Your task to perform on an android device: install app "McDonald's" Image 0: 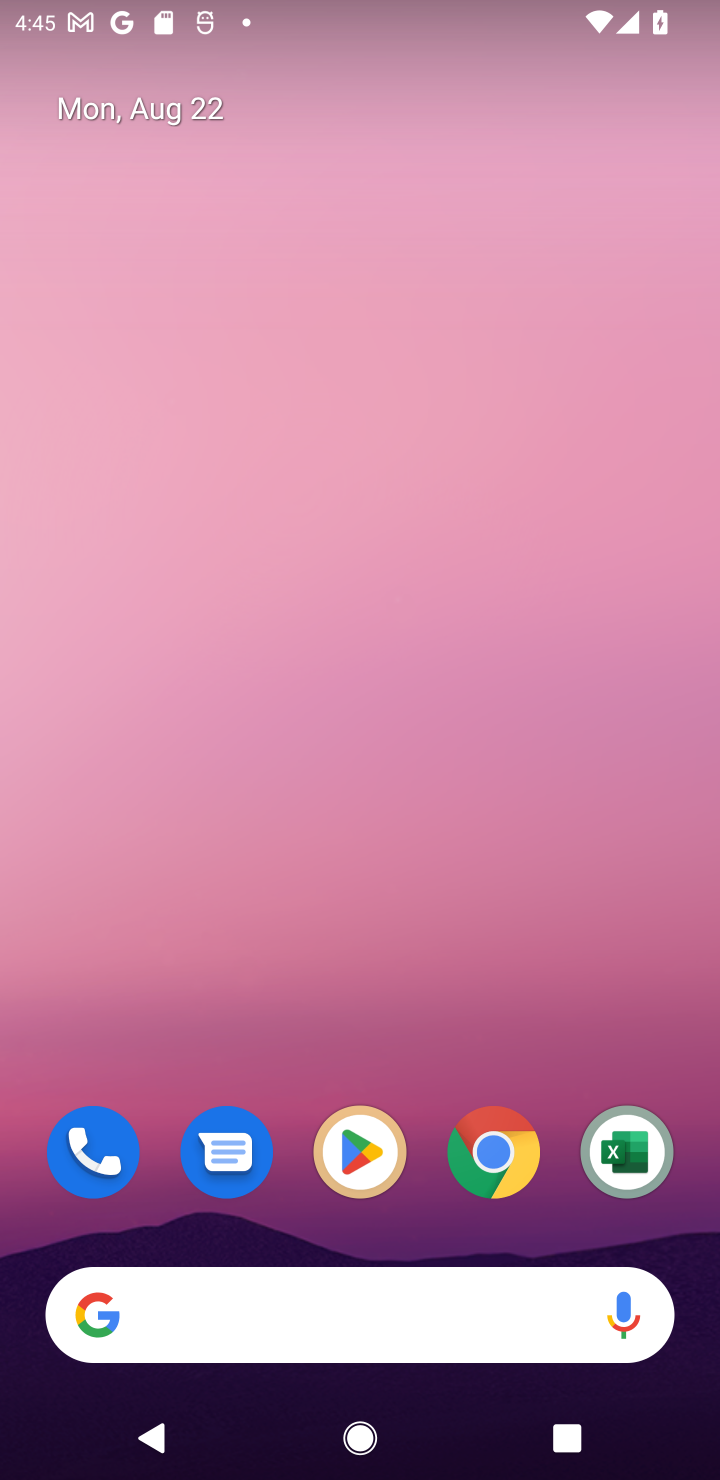
Step 0: click (325, 1134)
Your task to perform on an android device: install app "McDonald's" Image 1: 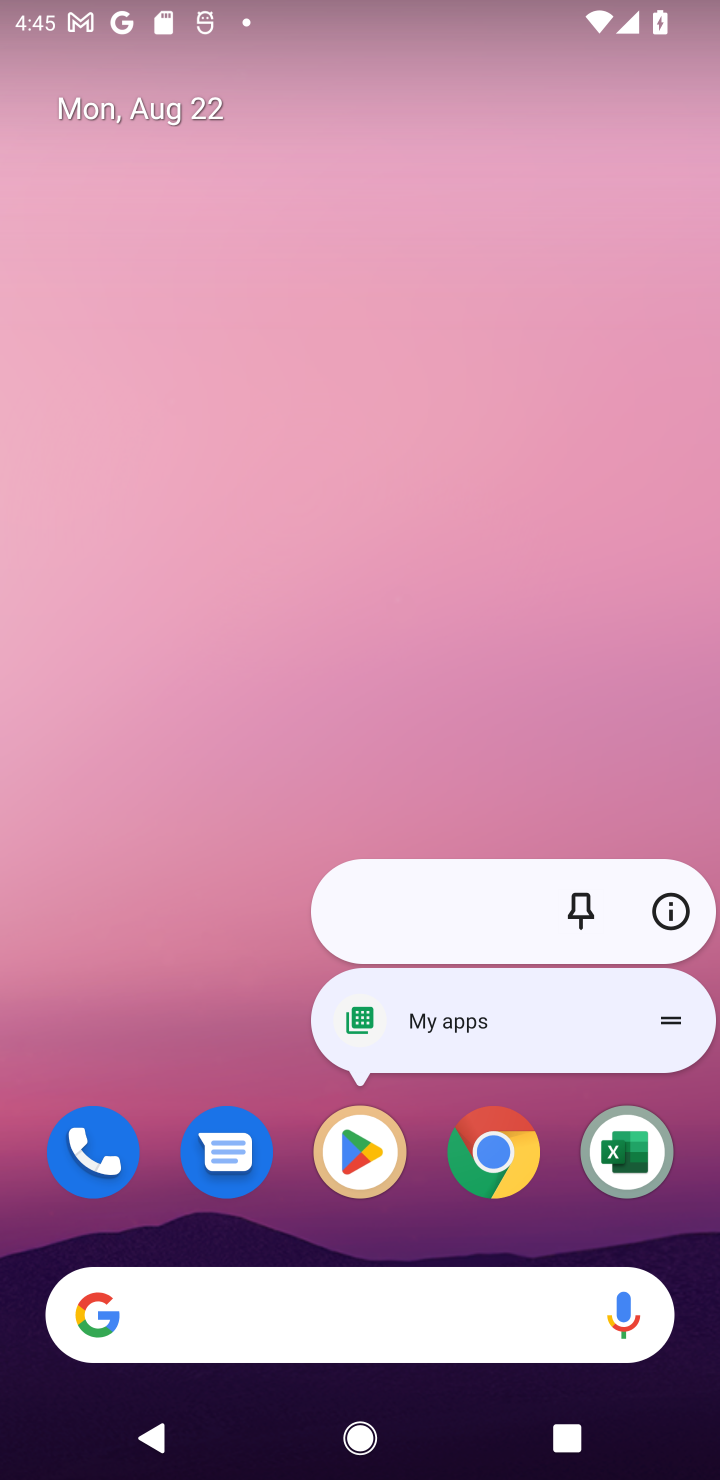
Step 1: click (355, 1174)
Your task to perform on an android device: install app "McDonald's" Image 2: 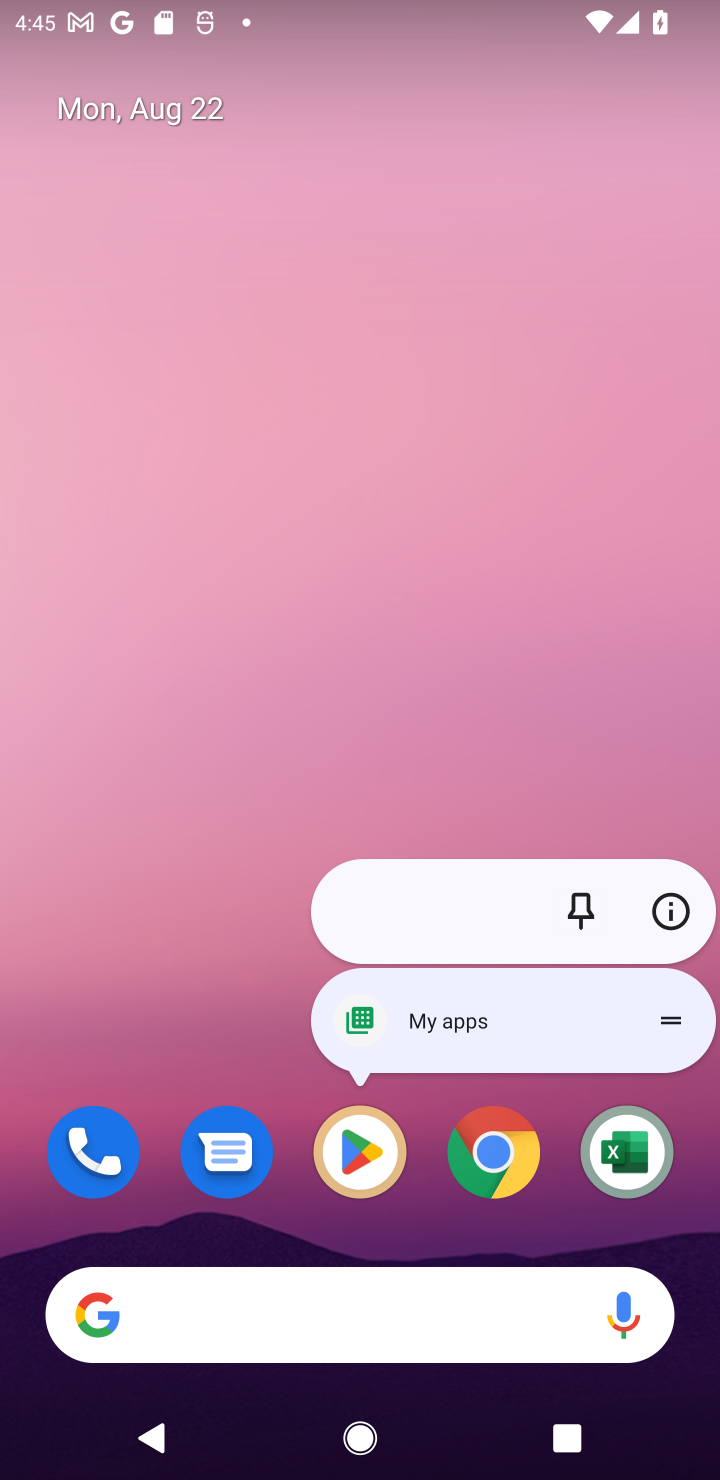
Step 2: click (355, 1174)
Your task to perform on an android device: install app "McDonald's" Image 3: 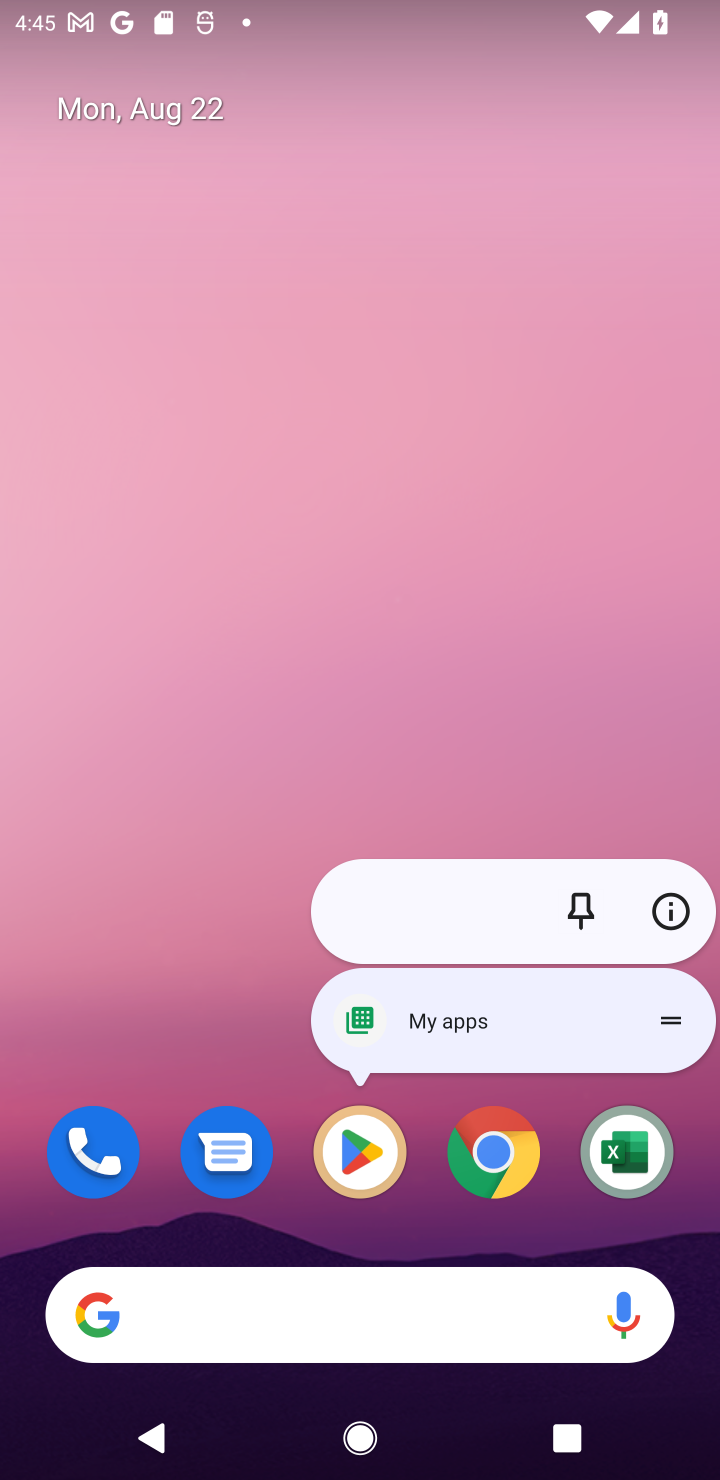
Step 3: click (355, 1174)
Your task to perform on an android device: install app "McDonald's" Image 4: 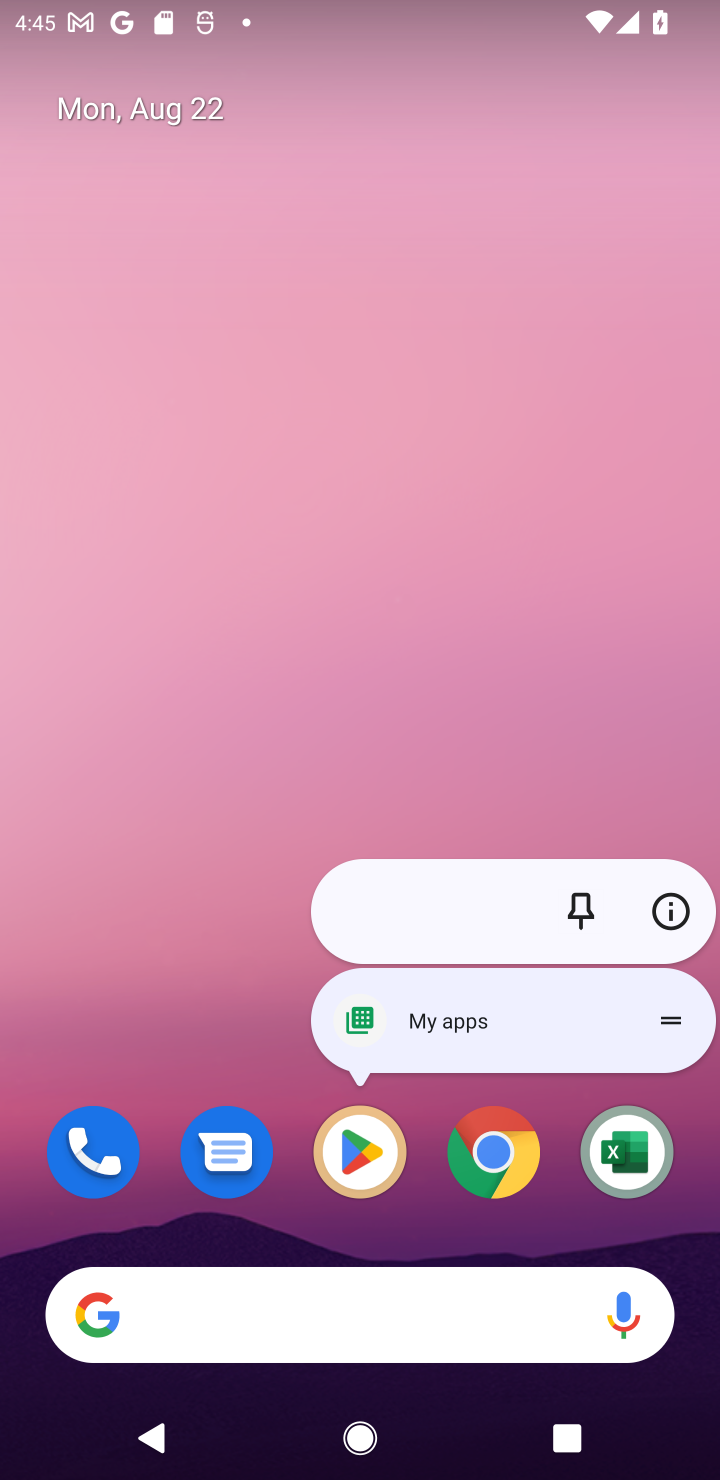
Step 4: click (355, 1174)
Your task to perform on an android device: install app "McDonald's" Image 5: 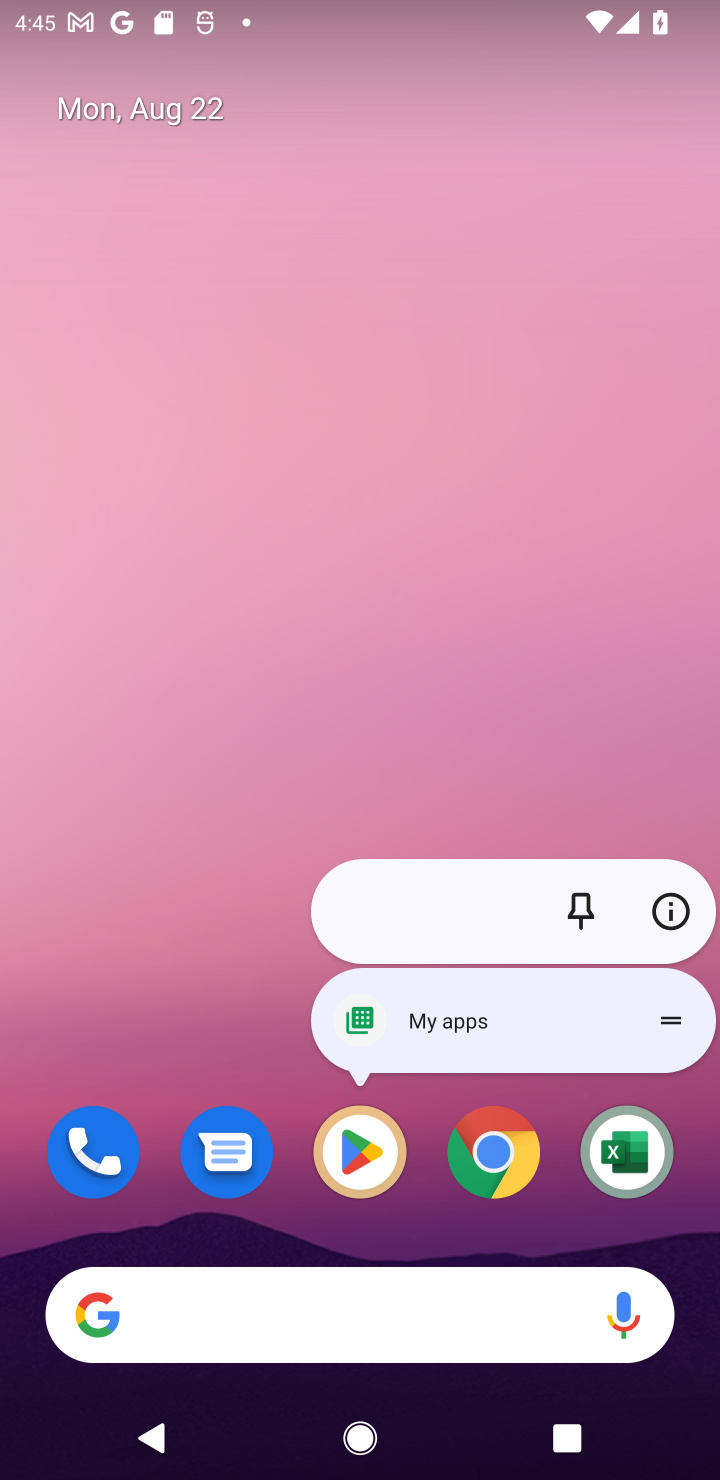
Step 5: click (355, 1174)
Your task to perform on an android device: install app "McDonald's" Image 6: 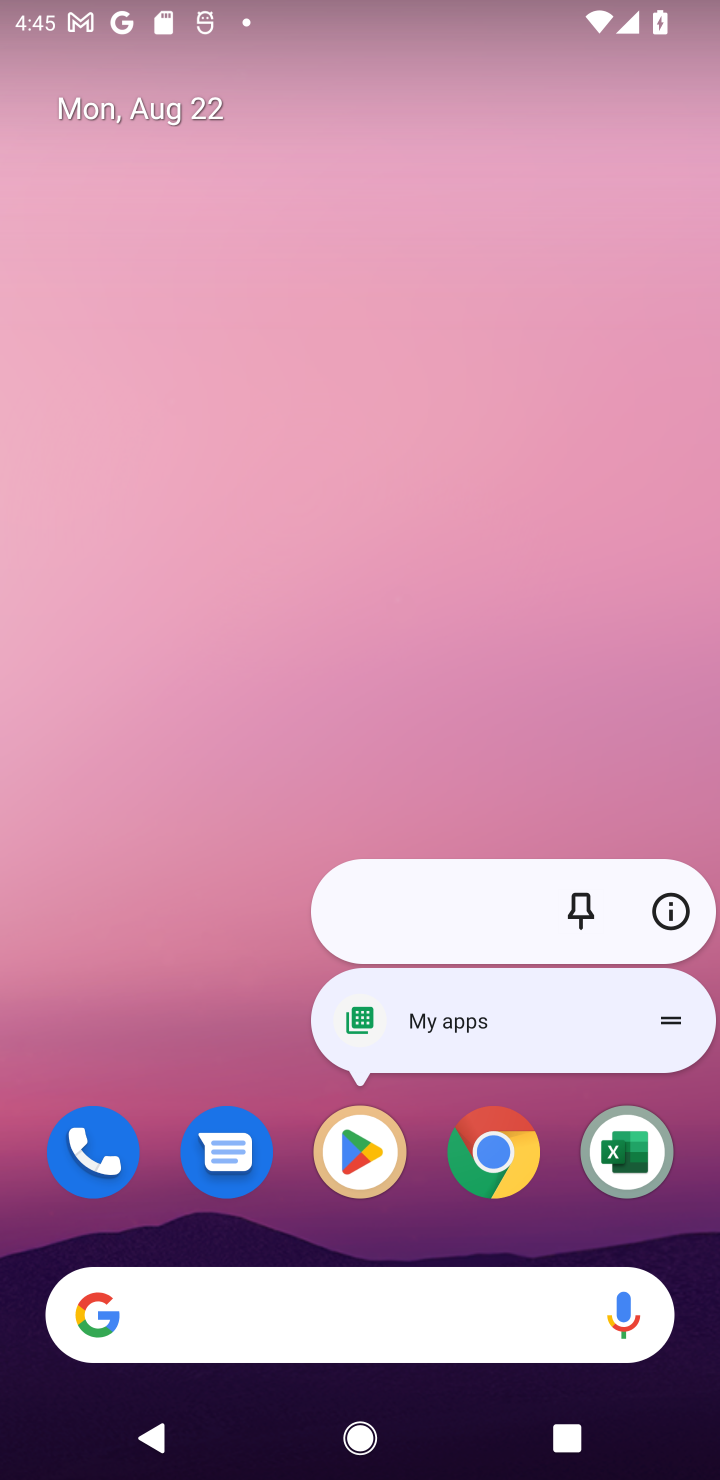
Step 6: click (355, 1174)
Your task to perform on an android device: install app "McDonald's" Image 7: 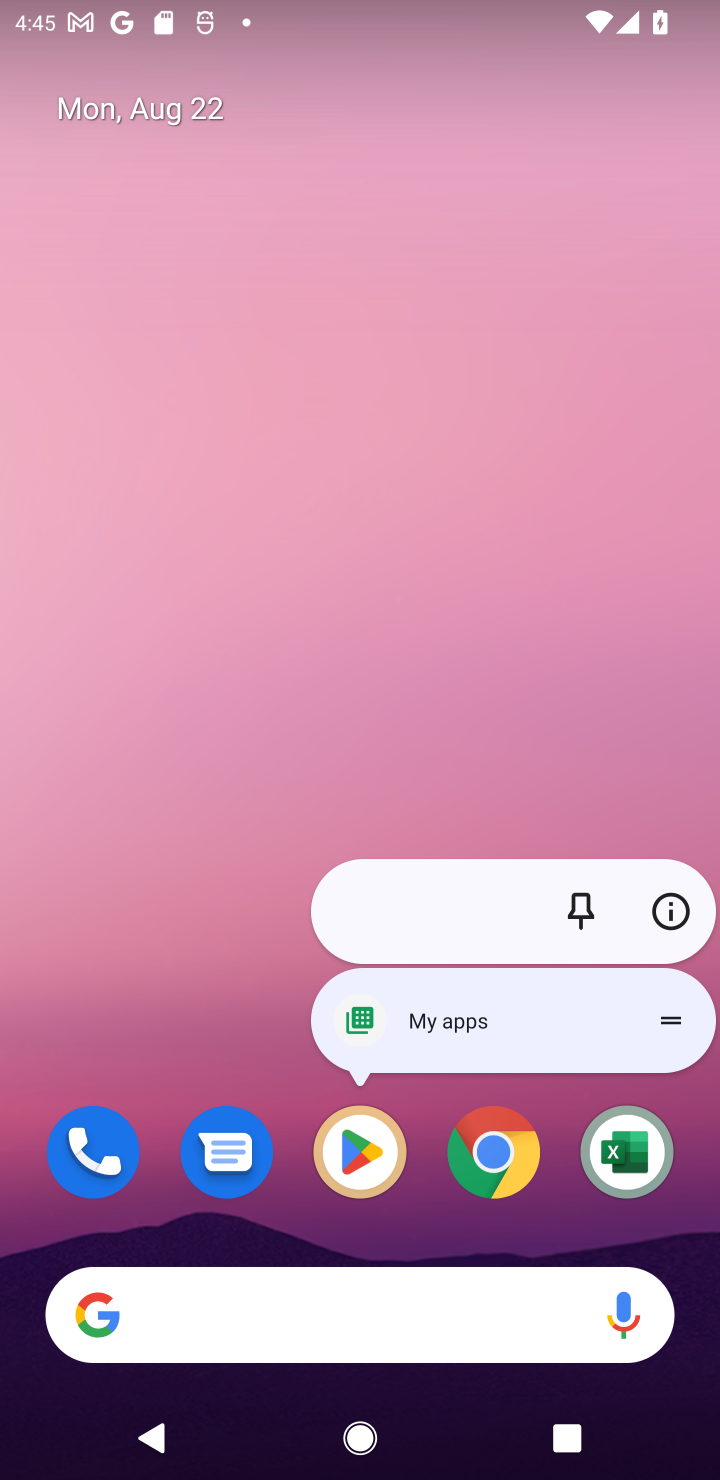
Step 7: click (380, 1150)
Your task to perform on an android device: install app "McDonald's" Image 8: 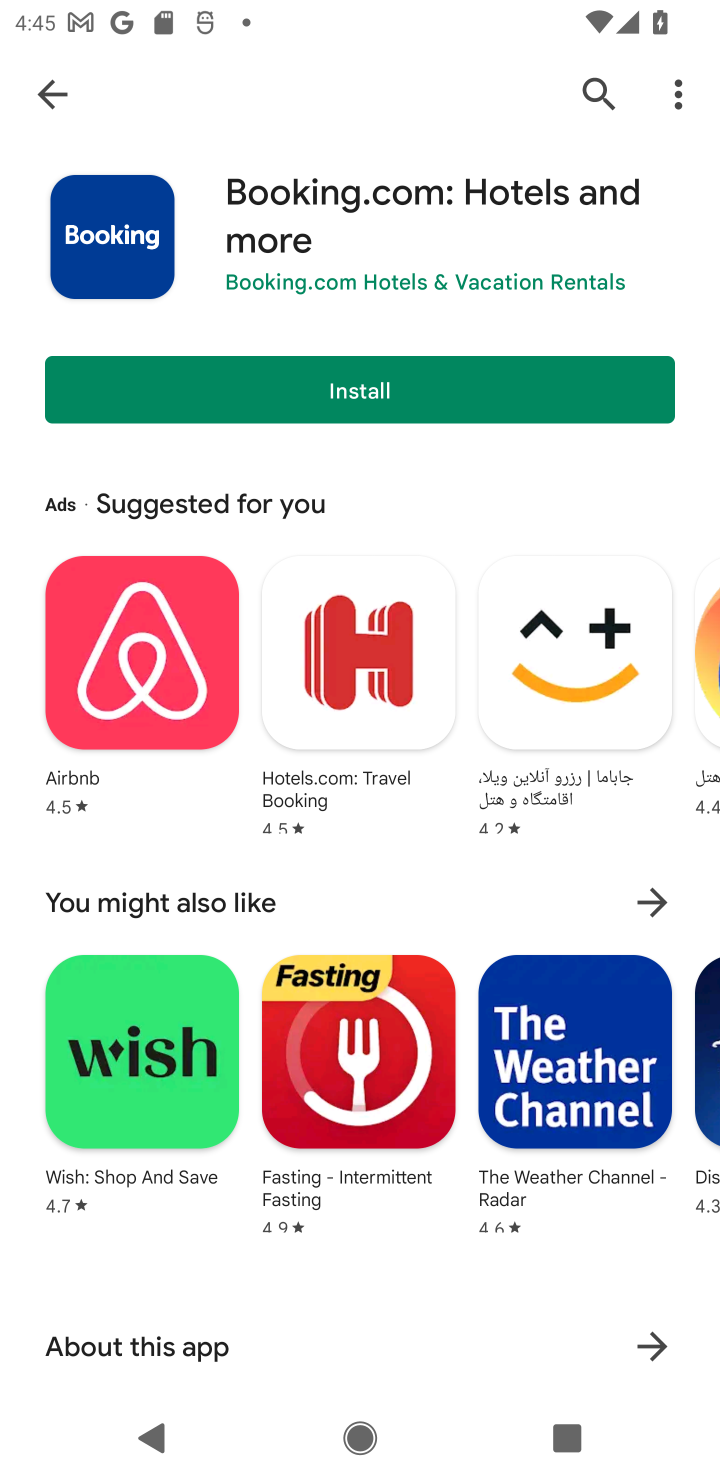
Step 8: click (35, 83)
Your task to perform on an android device: install app "McDonald's" Image 9: 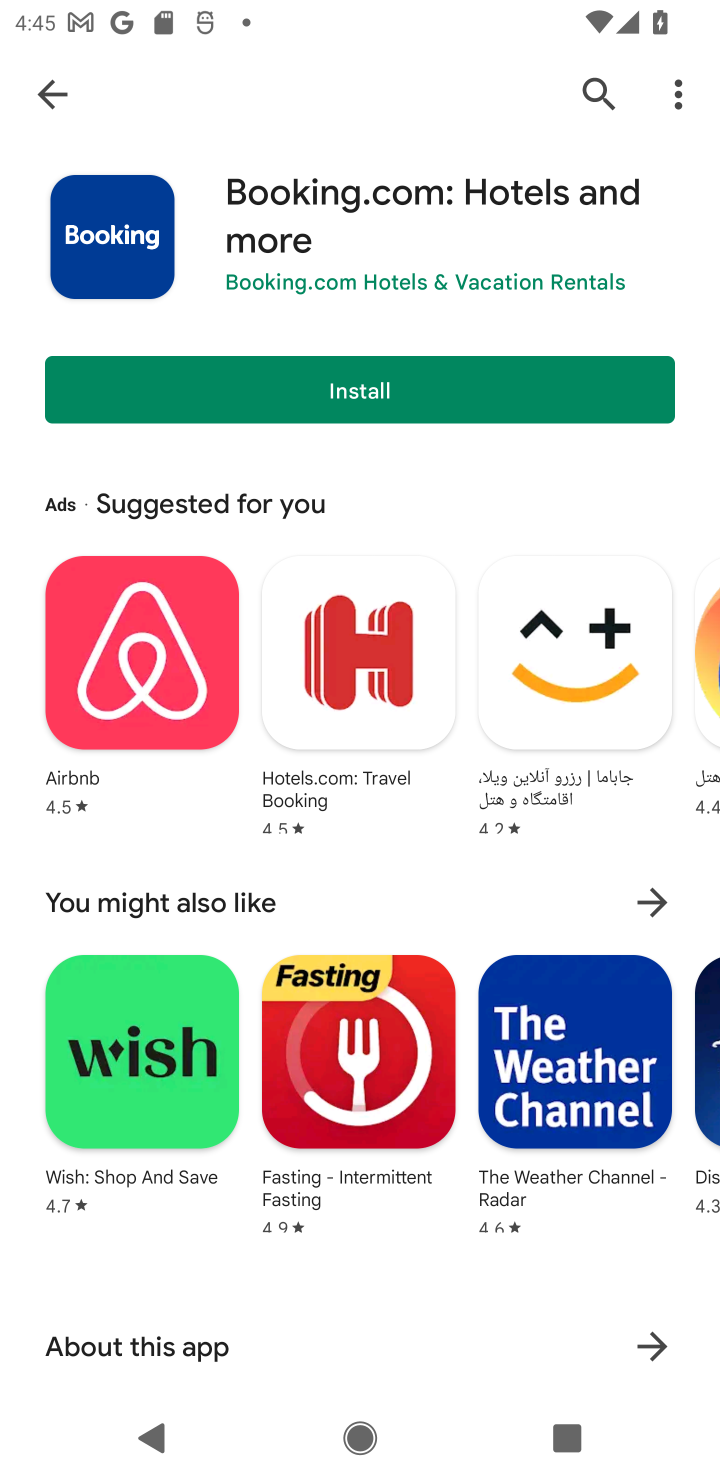
Step 9: click (585, 91)
Your task to perform on an android device: install app "McDonald's" Image 10: 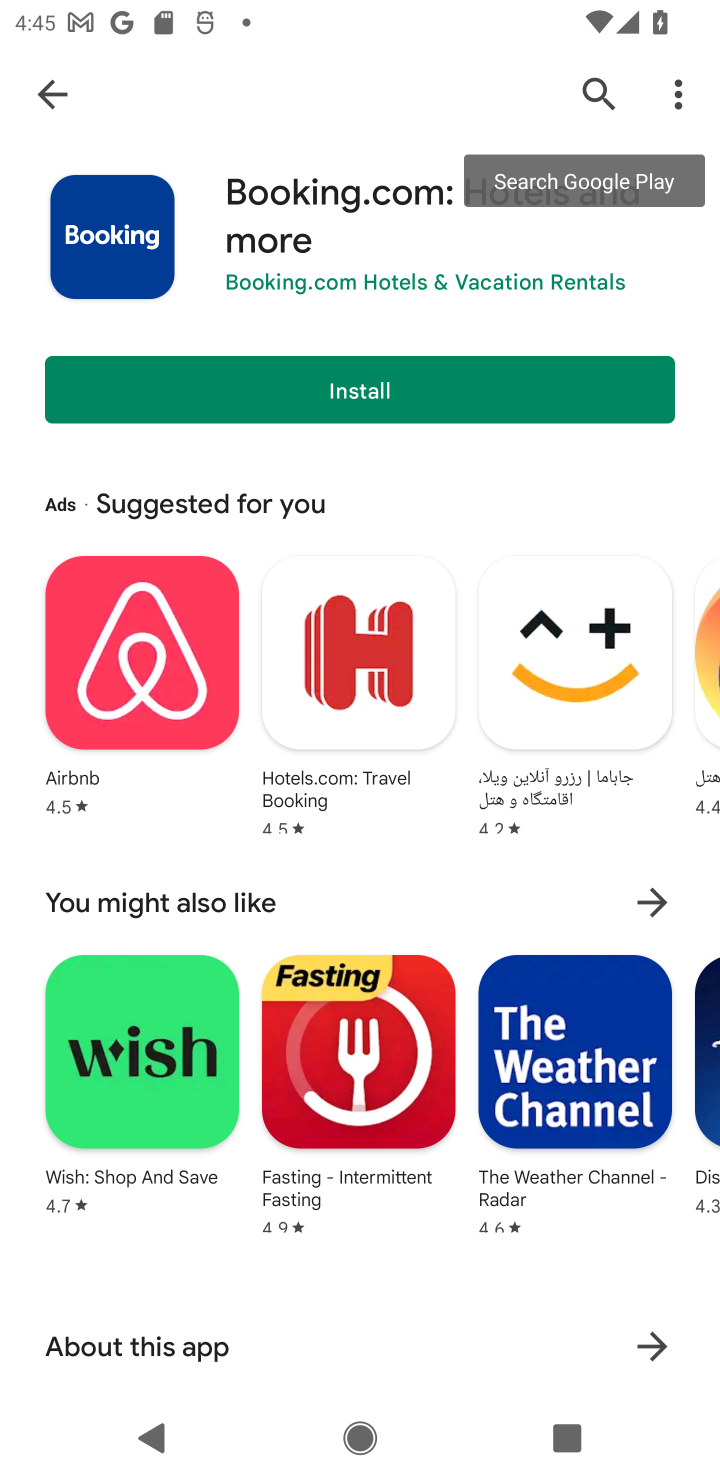
Step 10: click (585, 91)
Your task to perform on an android device: install app "McDonald's" Image 11: 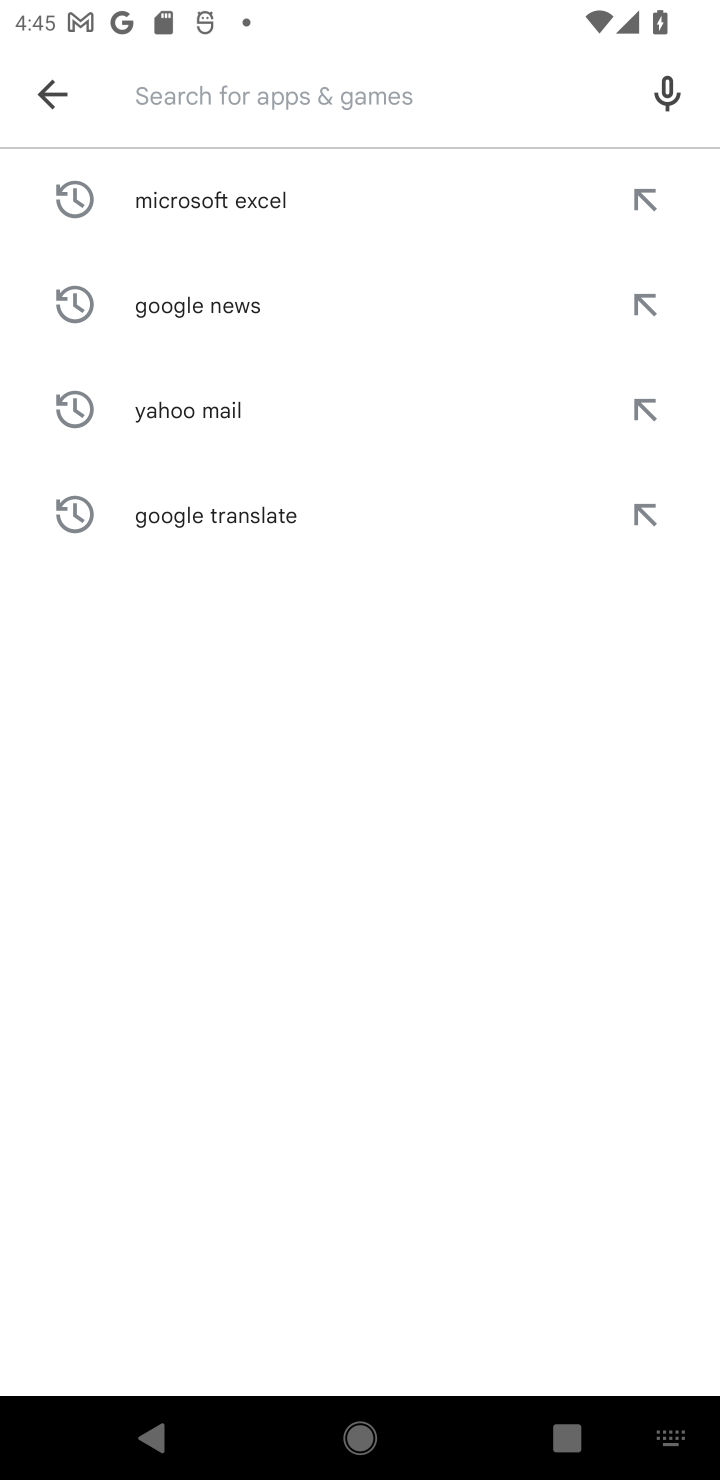
Step 11: type "McDonald's"
Your task to perform on an android device: install app "McDonald's" Image 12: 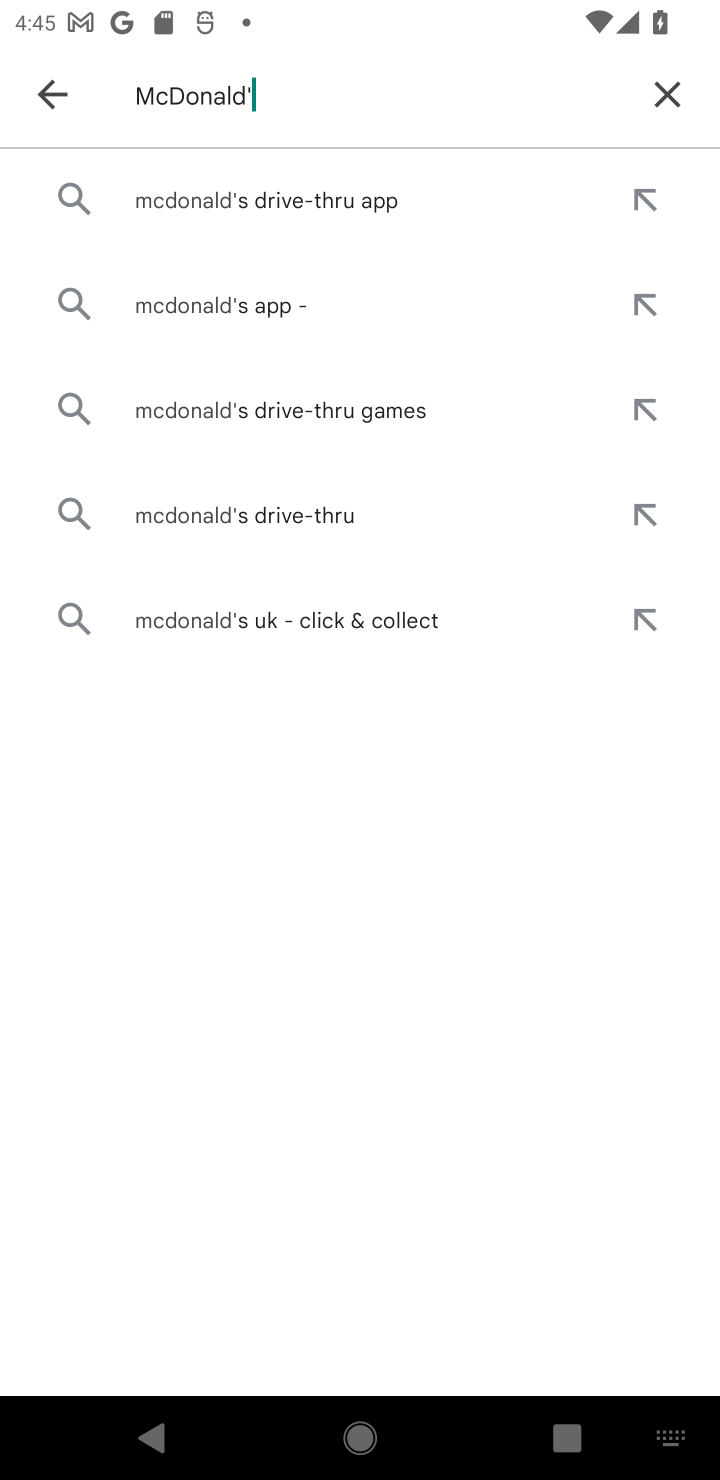
Step 12: type ""
Your task to perform on an android device: install app "McDonald's" Image 13: 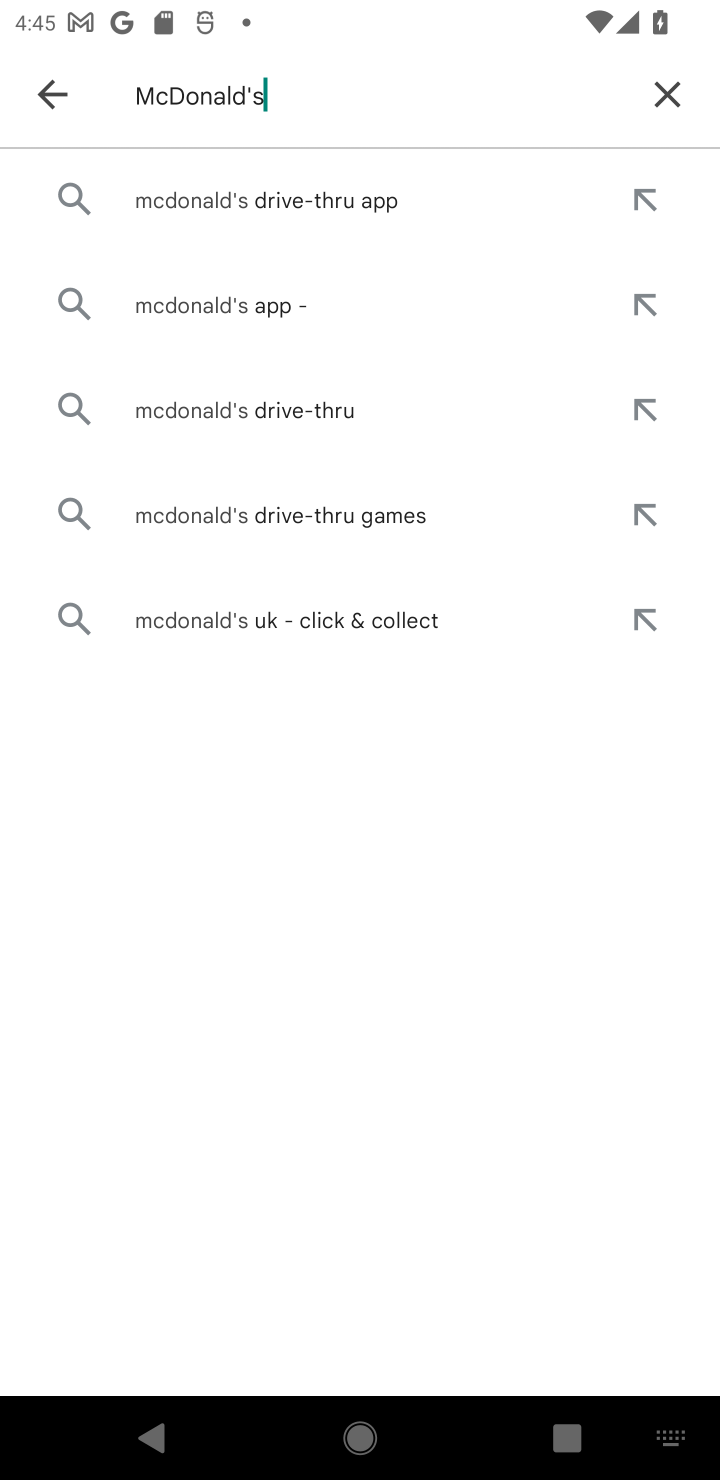
Step 13: click (175, 179)
Your task to perform on an android device: install app "McDonald's" Image 14: 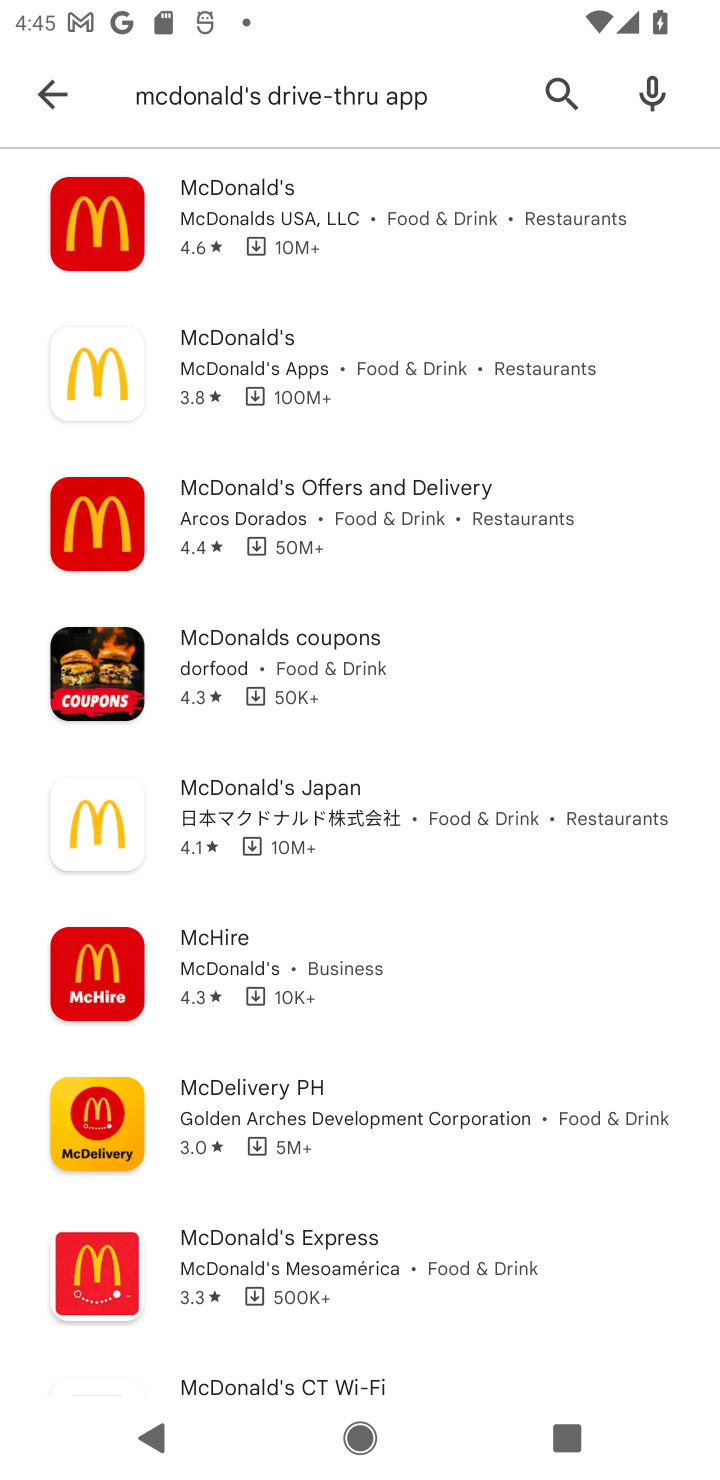
Step 14: click (233, 352)
Your task to perform on an android device: install app "McDonald's" Image 15: 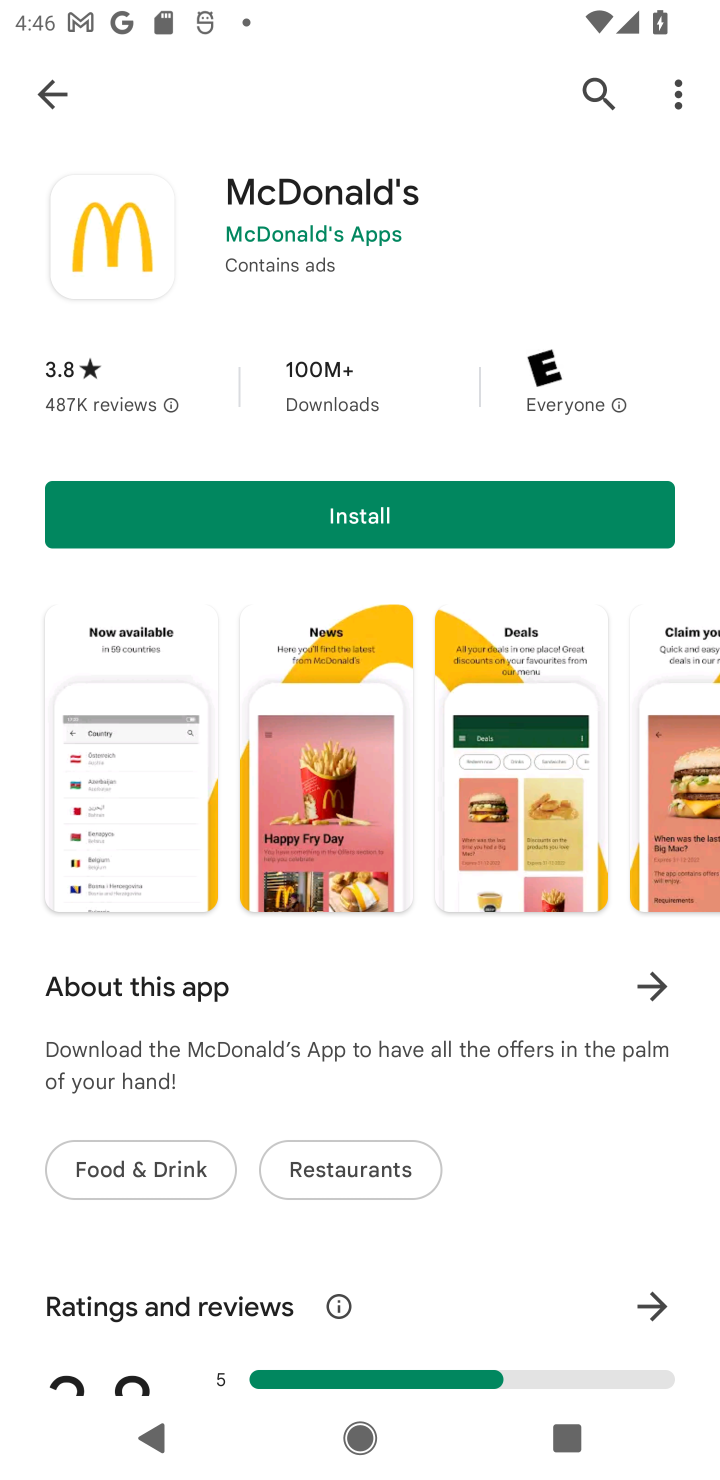
Step 15: click (286, 529)
Your task to perform on an android device: install app "McDonald's" Image 16: 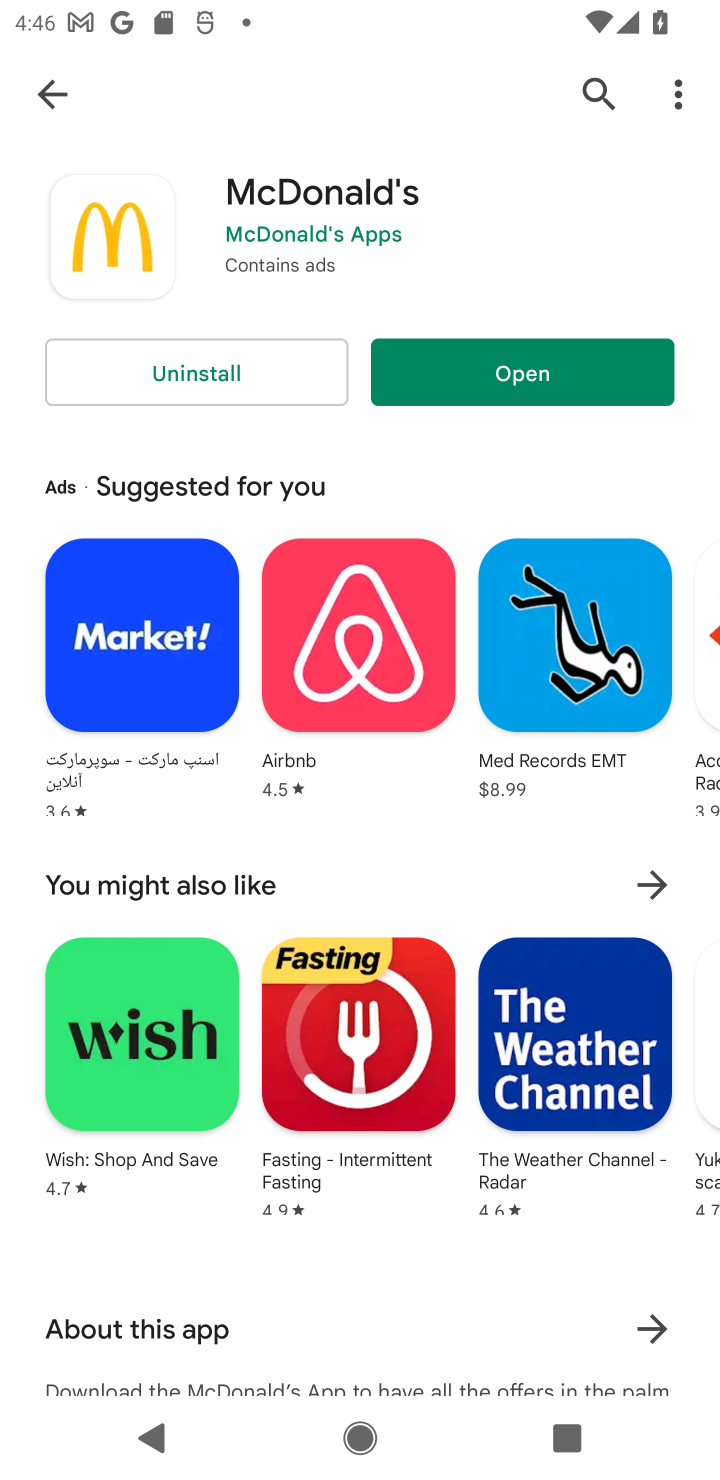
Step 16: click (615, 371)
Your task to perform on an android device: install app "McDonald's" Image 17: 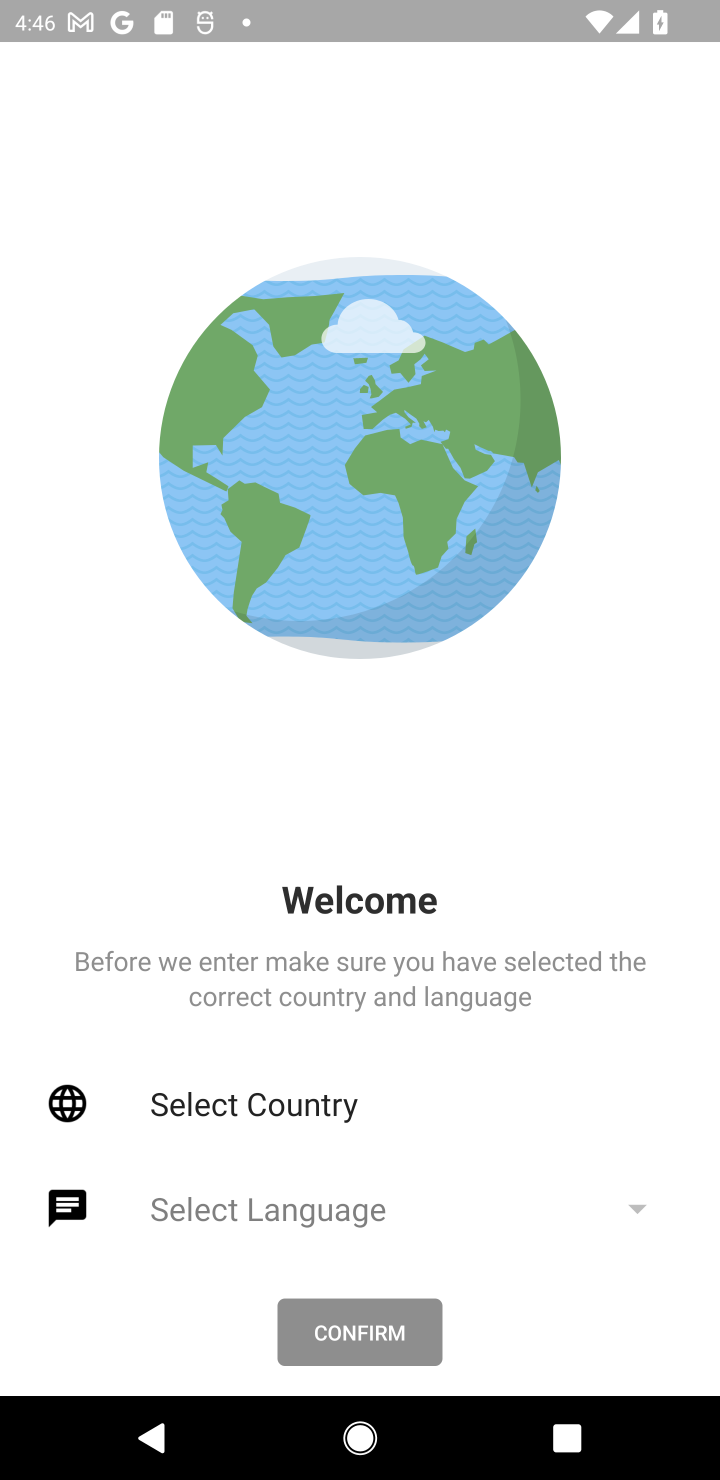
Step 17: task complete